Your task to perform on an android device: Is it going to rain tomorrow? Image 0: 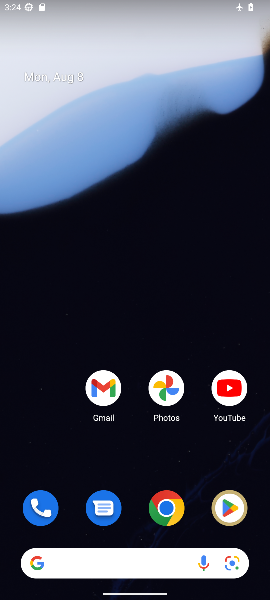
Step 0: click (112, 561)
Your task to perform on an android device: Is it going to rain tomorrow? Image 1: 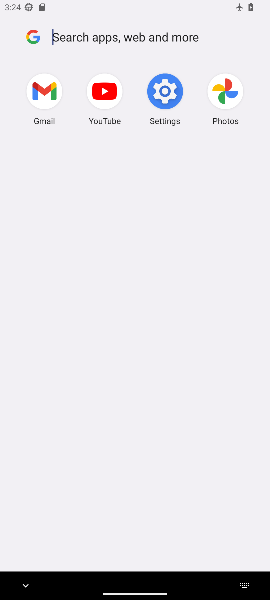
Step 1: type "Is it going to rain tomorrow?"
Your task to perform on an android device: Is it going to rain tomorrow? Image 2: 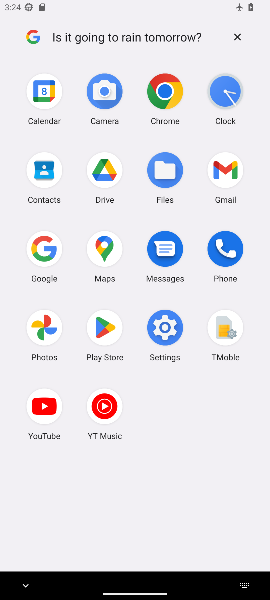
Step 2: click (203, 36)
Your task to perform on an android device: Is it going to rain tomorrow? Image 3: 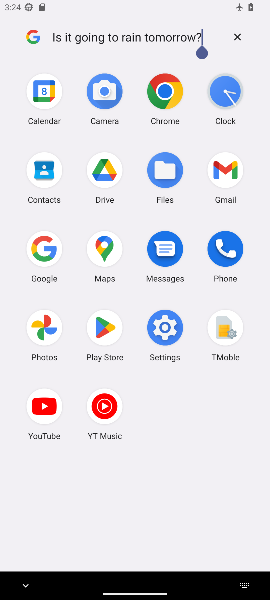
Step 3: click (241, 35)
Your task to perform on an android device: Is it going to rain tomorrow? Image 4: 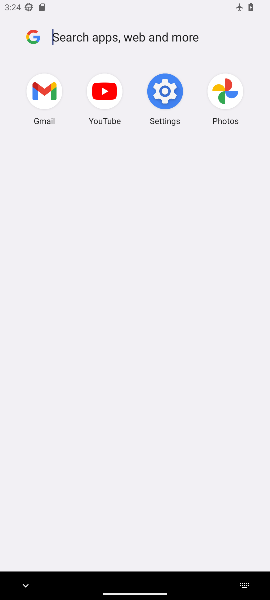
Step 4: press back button
Your task to perform on an android device: Is it going to rain tomorrow? Image 5: 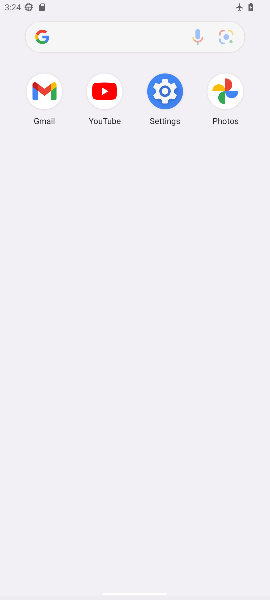
Step 5: press back button
Your task to perform on an android device: Is it going to rain tomorrow? Image 6: 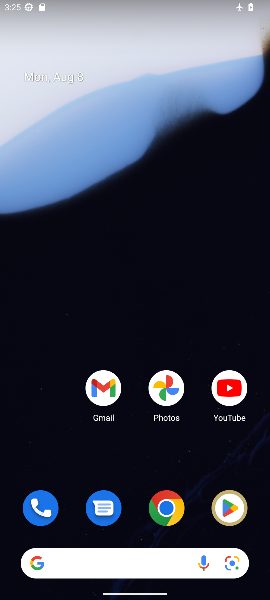
Step 6: drag from (74, 451) to (76, 67)
Your task to perform on an android device: Is it going to rain tomorrow? Image 7: 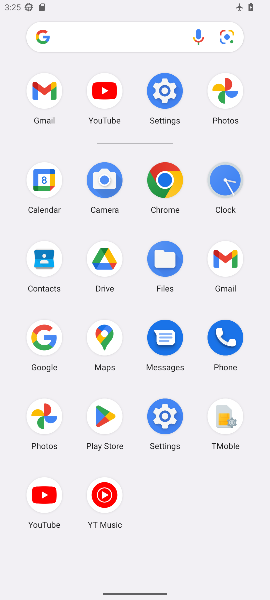
Step 7: click (45, 339)
Your task to perform on an android device: Is it going to rain tomorrow? Image 8: 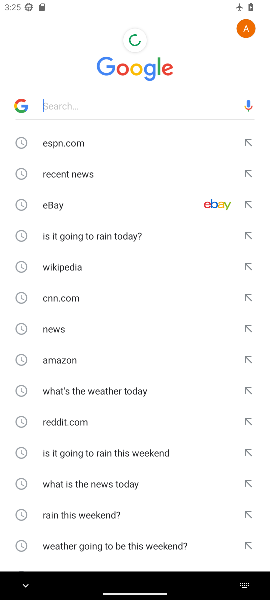
Step 8: type "Is it going to rain tomorrow?"
Your task to perform on an android device: Is it going to rain tomorrow? Image 9: 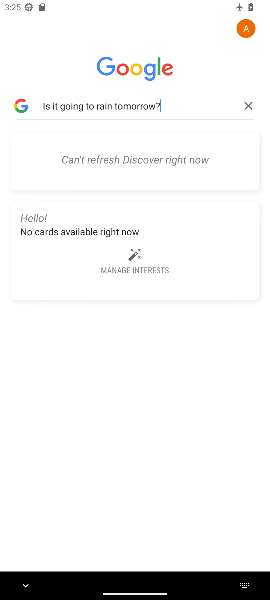
Step 9: task complete